Your task to perform on an android device: Open ESPN.com Image 0: 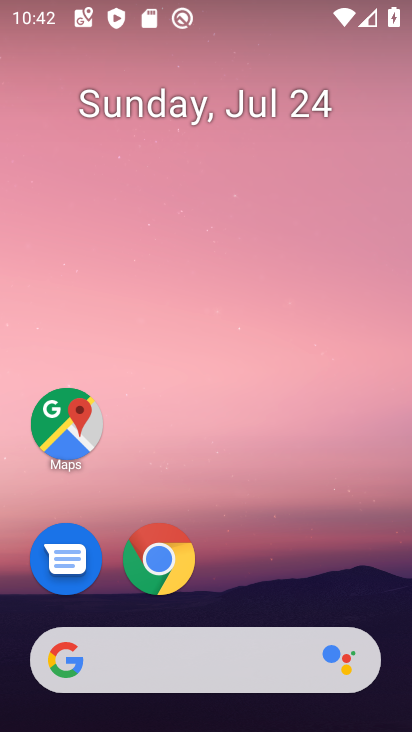
Step 0: click (158, 563)
Your task to perform on an android device: Open ESPN.com Image 1: 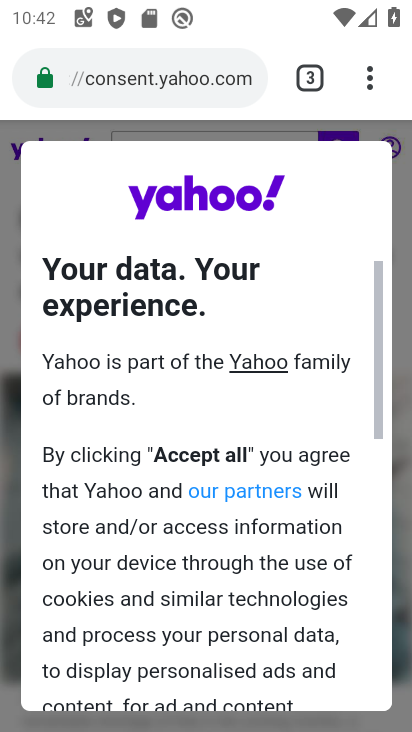
Step 1: click (310, 80)
Your task to perform on an android device: Open ESPN.com Image 2: 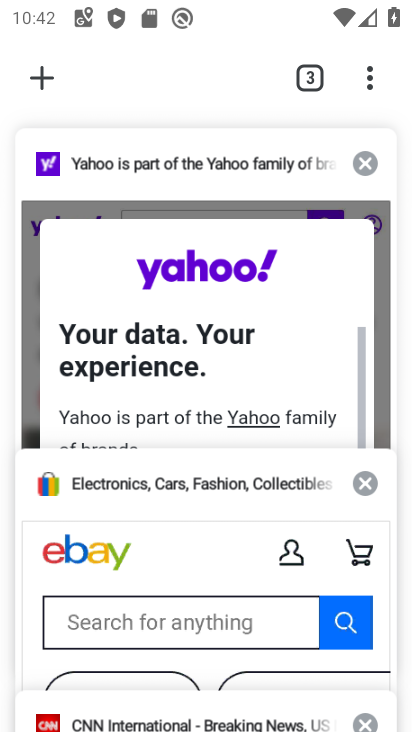
Step 2: click (44, 77)
Your task to perform on an android device: Open ESPN.com Image 3: 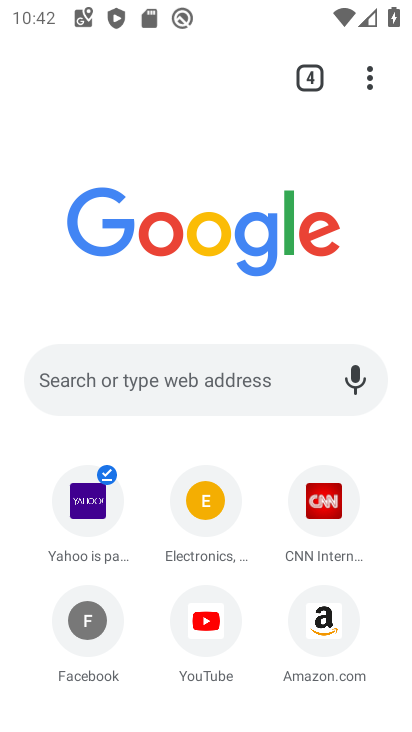
Step 3: drag from (203, 631) to (239, 650)
Your task to perform on an android device: Open ESPN.com Image 4: 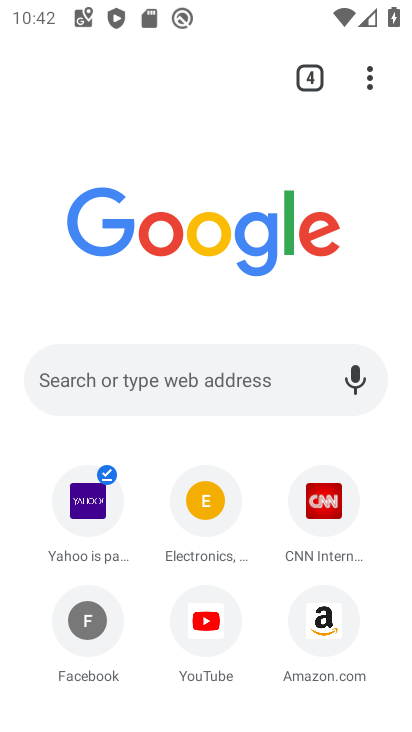
Step 4: click (90, 375)
Your task to perform on an android device: Open ESPN.com Image 5: 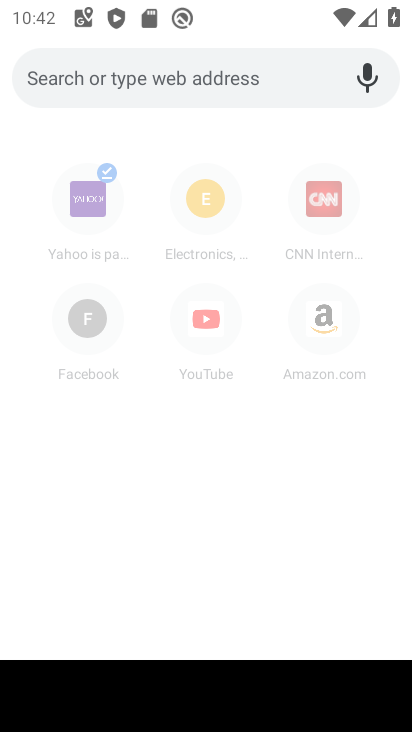
Step 5: type "espn.com"
Your task to perform on an android device: Open ESPN.com Image 6: 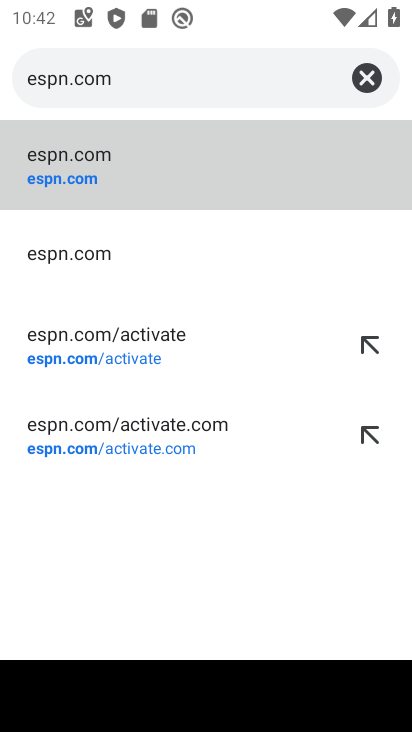
Step 6: click (142, 185)
Your task to perform on an android device: Open ESPN.com Image 7: 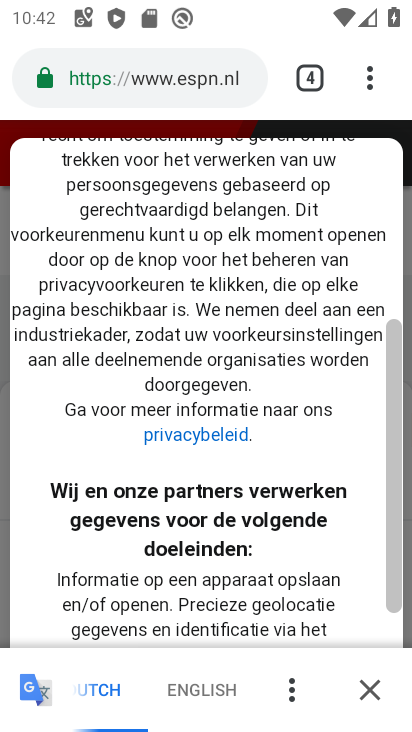
Step 7: task complete